Your task to perform on an android device: Is it going to rain today? Image 0: 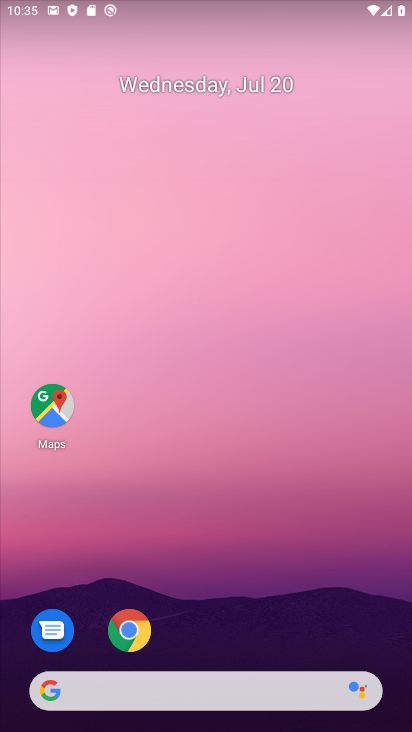
Step 0: drag from (211, 634) to (197, 97)
Your task to perform on an android device: Is it going to rain today? Image 1: 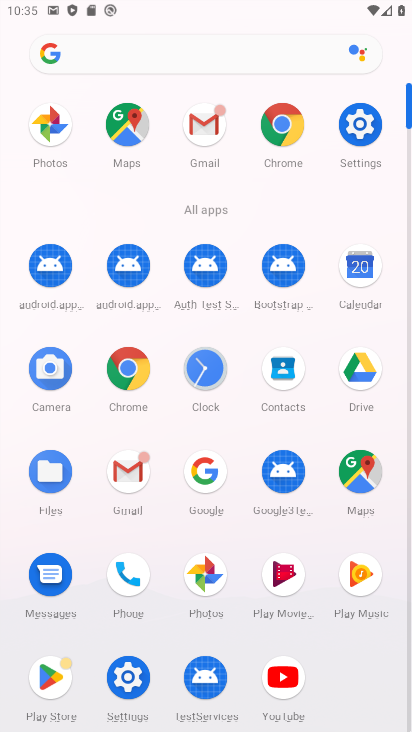
Step 1: click (213, 469)
Your task to perform on an android device: Is it going to rain today? Image 2: 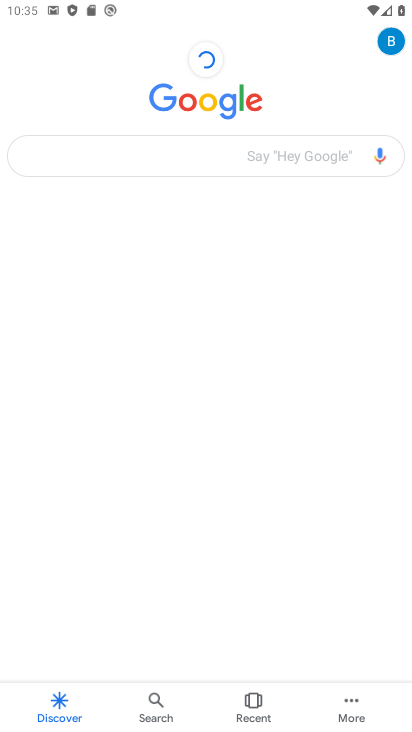
Step 2: click (138, 160)
Your task to perform on an android device: Is it going to rain today? Image 3: 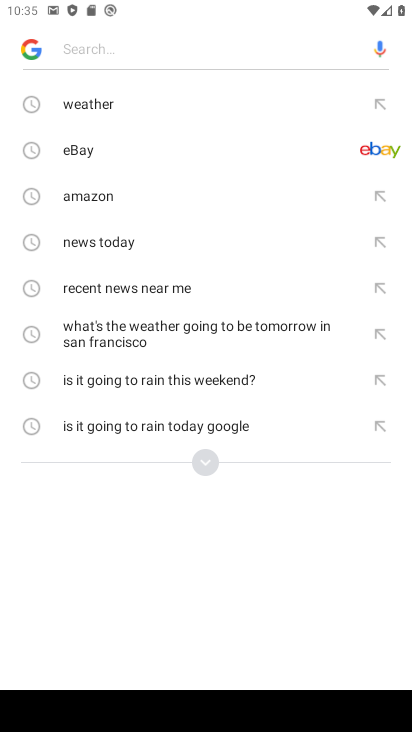
Step 3: type "is it going to rain today"
Your task to perform on an android device: Is it going to rain today? Image 4: 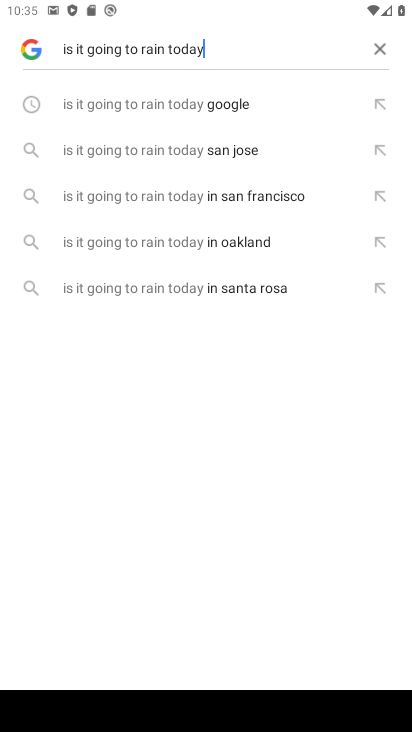
Step 4: click (190, 110)
Your task to perform on an android device: Is it going to rain today? Image 5: 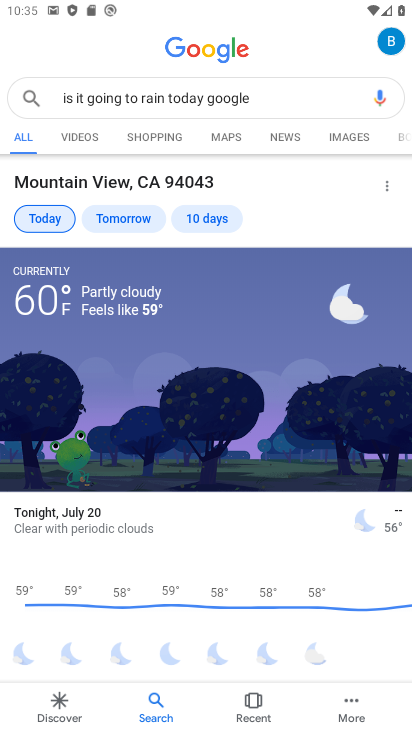
Step 5: task complete